Your task to perform on an android device: Go to Yahoo.com Image 0: 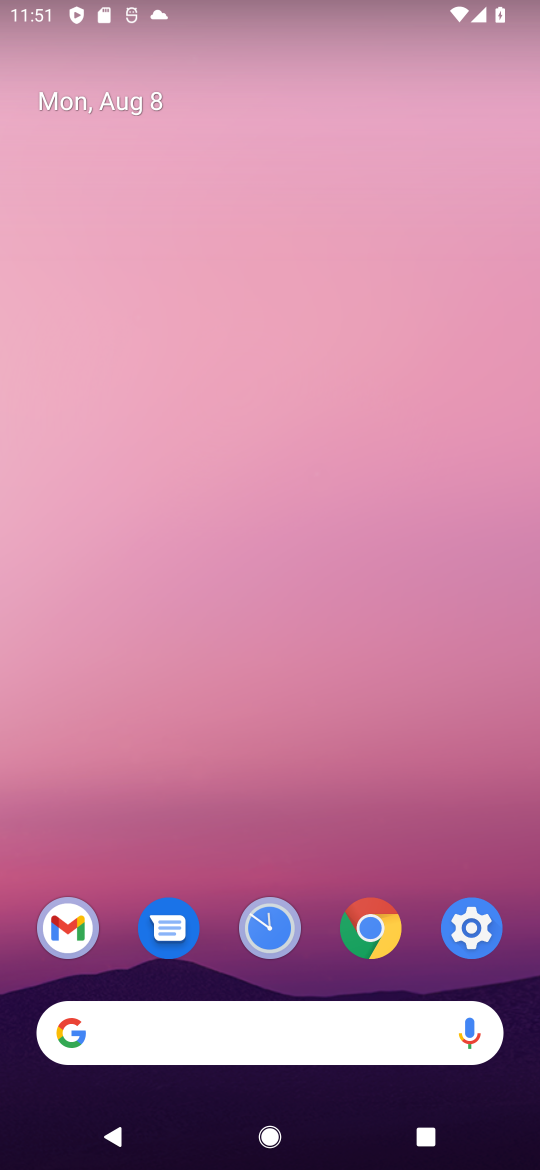
Step 0: press home button
Your task to perform on an android device: Go to Yahoo.com Image 1: 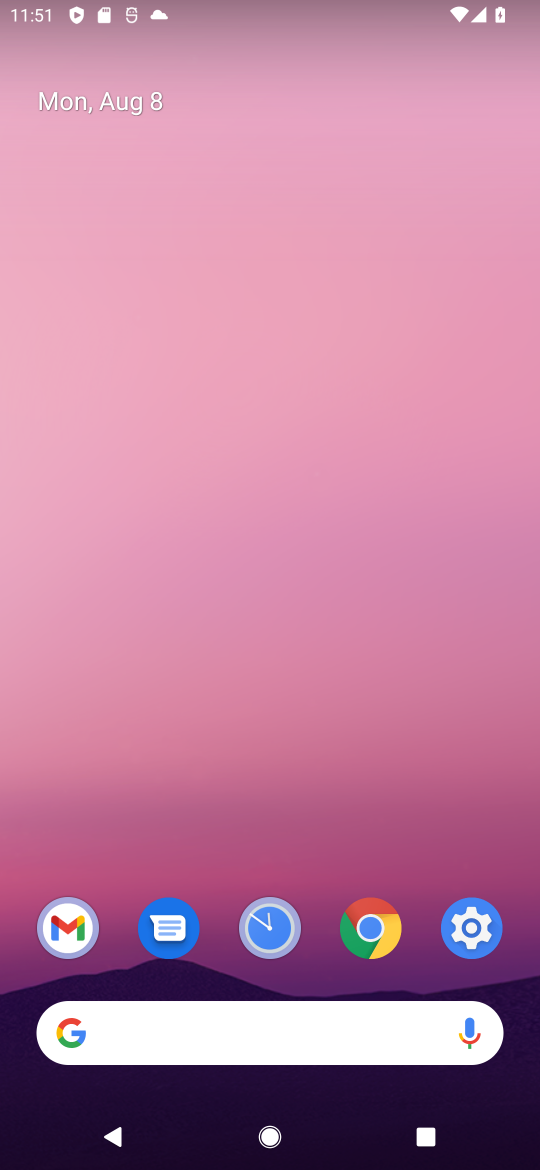
Step 1: click (362, 942)
Your task to perform on an android device: Go to Yahoo.com Image 2: 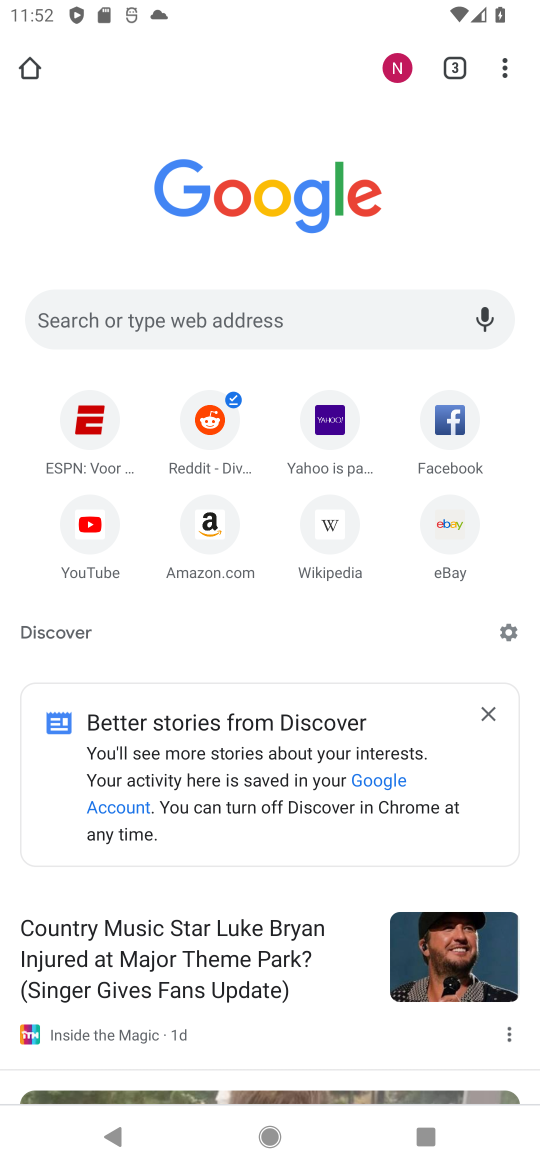
Step 2: click (325, 431)
Your task to perform on an android device: Go to Yahoo.com Image 3: 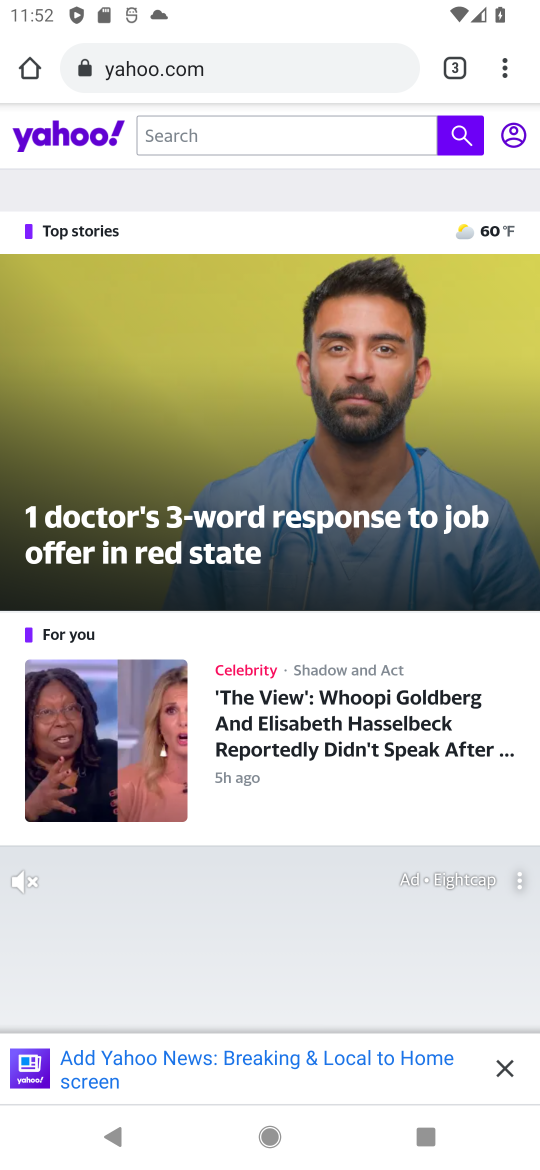
Step 3: task complete